Your task to perform on an android device: turn off sleep mode Image 0: 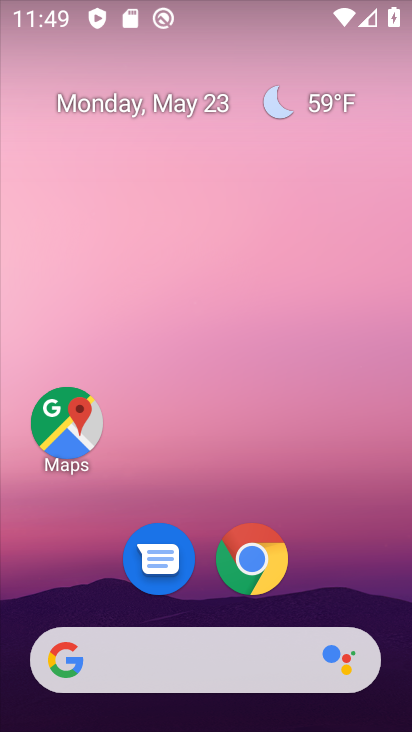
Step 0: drag from (393, 641) to (291, 38)
Your task to perform on an android device: turn off sleep mode Image 1: 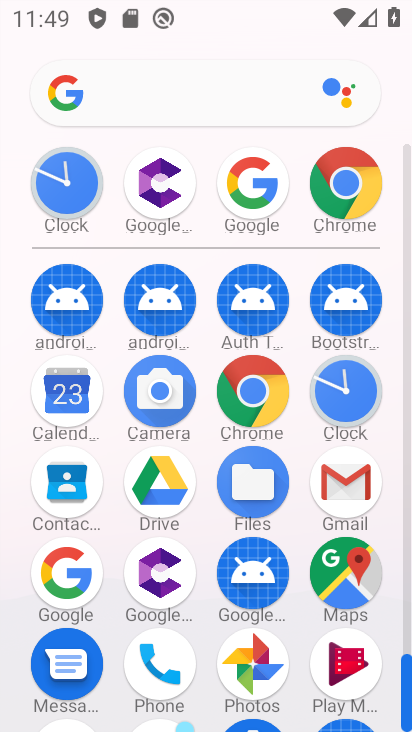
Step 1: drag from (202, 634) to (229, 207)
Your task to perform on an android device: turn off sleep mode Image 2: 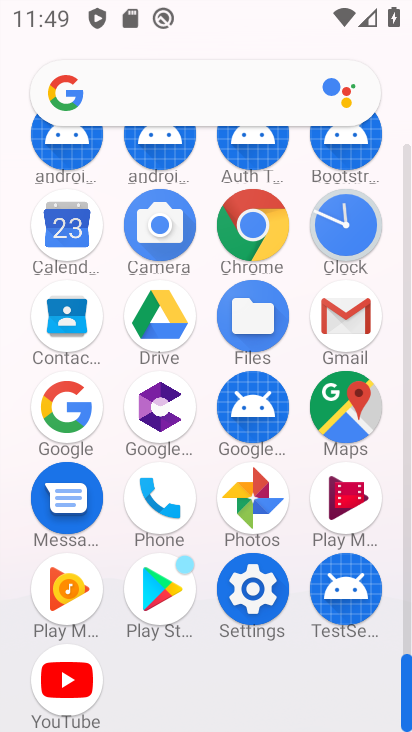
Step 2: click (256, 590)
Your task to perform on an android device: turn off sleep mode Image 3: 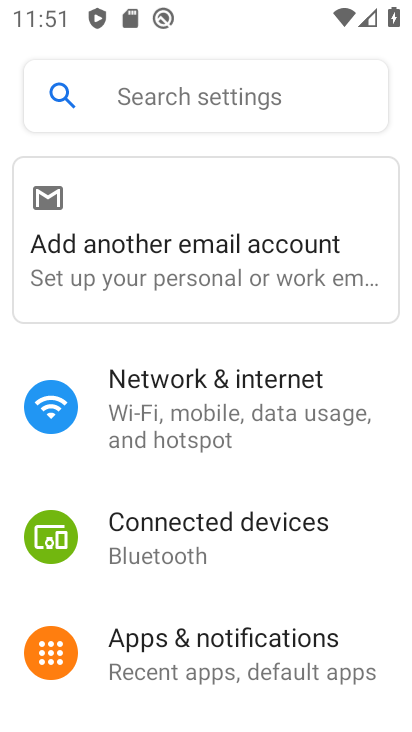
Step 3: task complete